Your task to perform on an android device: find snoozed emails in the gmail app Image 0: 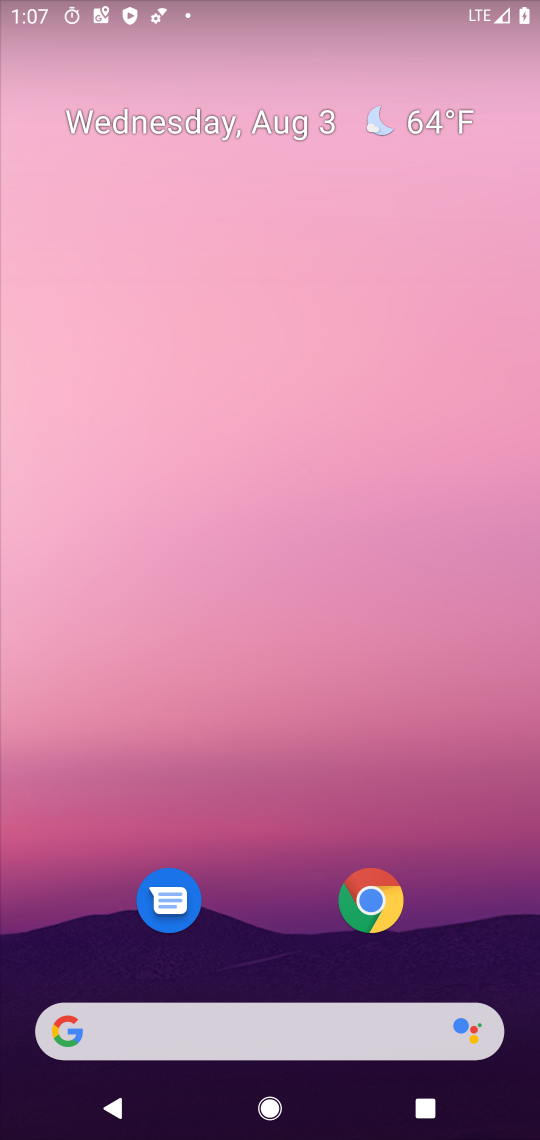
Step 0: drag from (283, 918) to (314, 138)
Your task to perform on an android device: find snoozed emails in the gmail app Image 1: 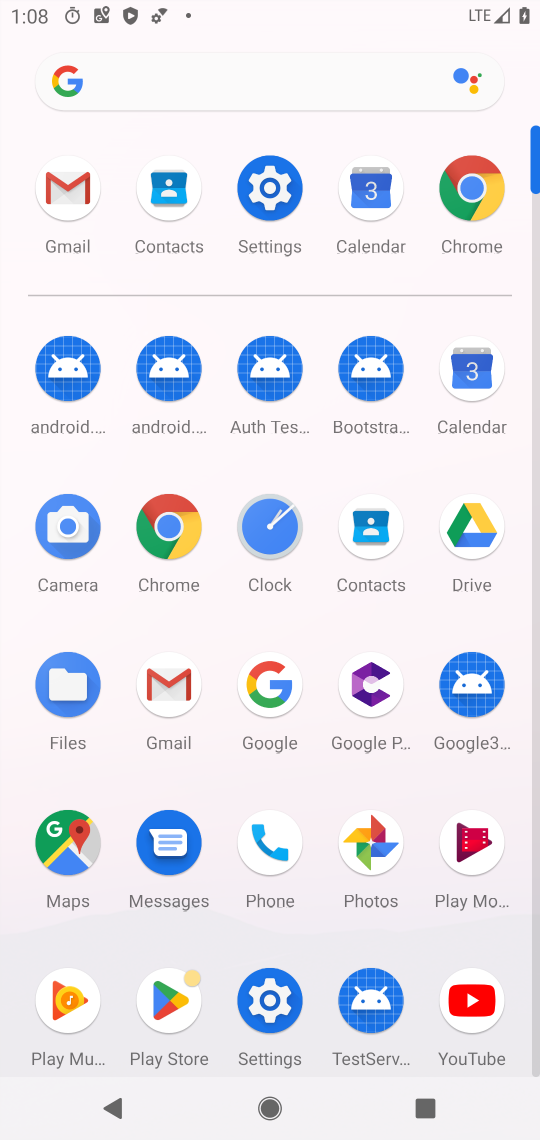
Step 1: click (75, 181)
Your task to perform on an android device: find snoozed emails in the gmail app Image 2: 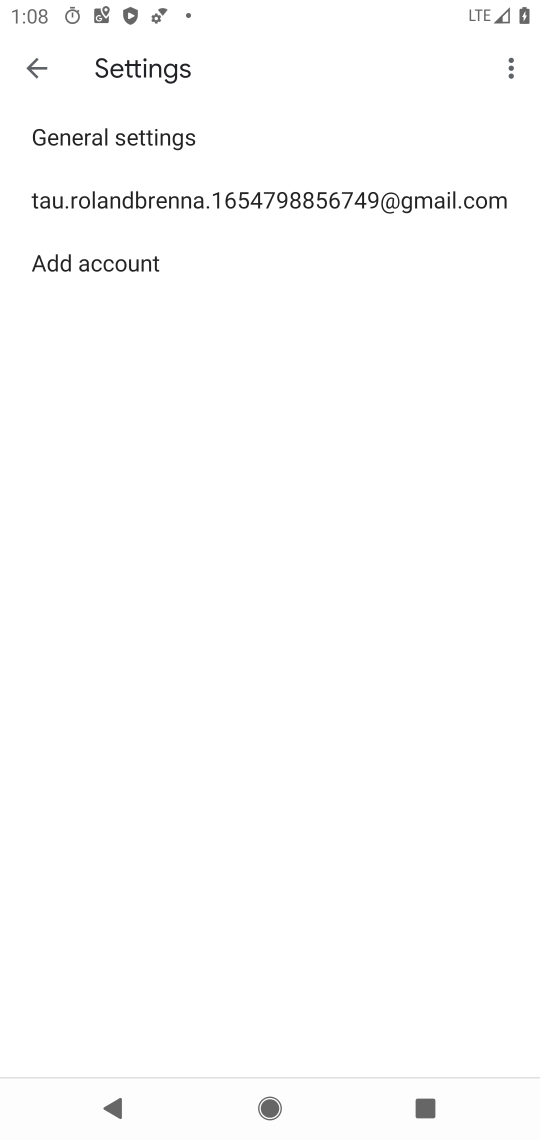
Step 2: click (46, 46)
Your task to perform on an android device: find snoozed emails in the gmail app Image 3: 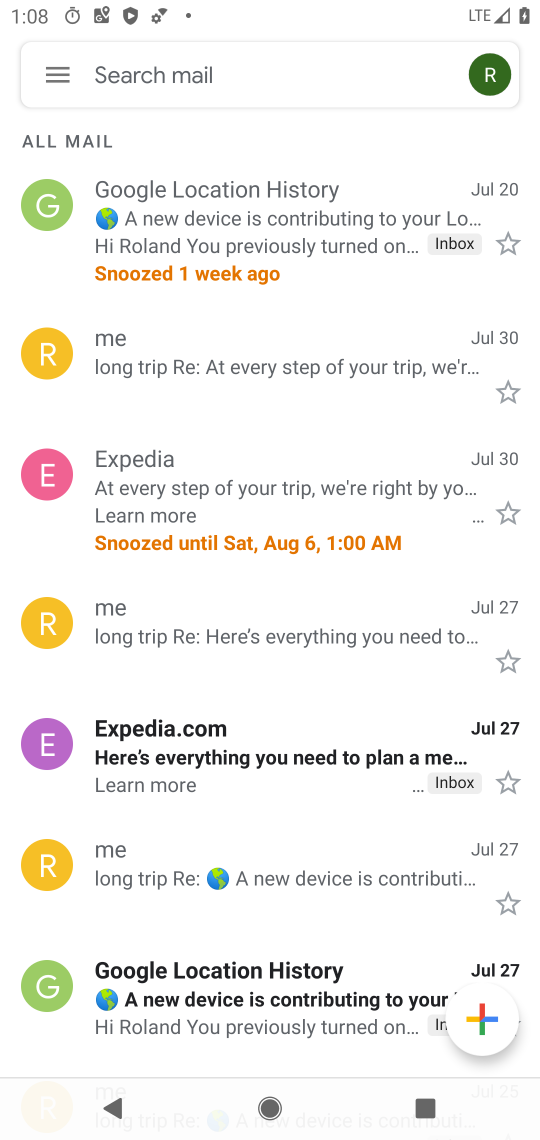
Step 3: click (62, 61)
Your task to perform on an android device: find snoozed emails in the gmail app Image 4: 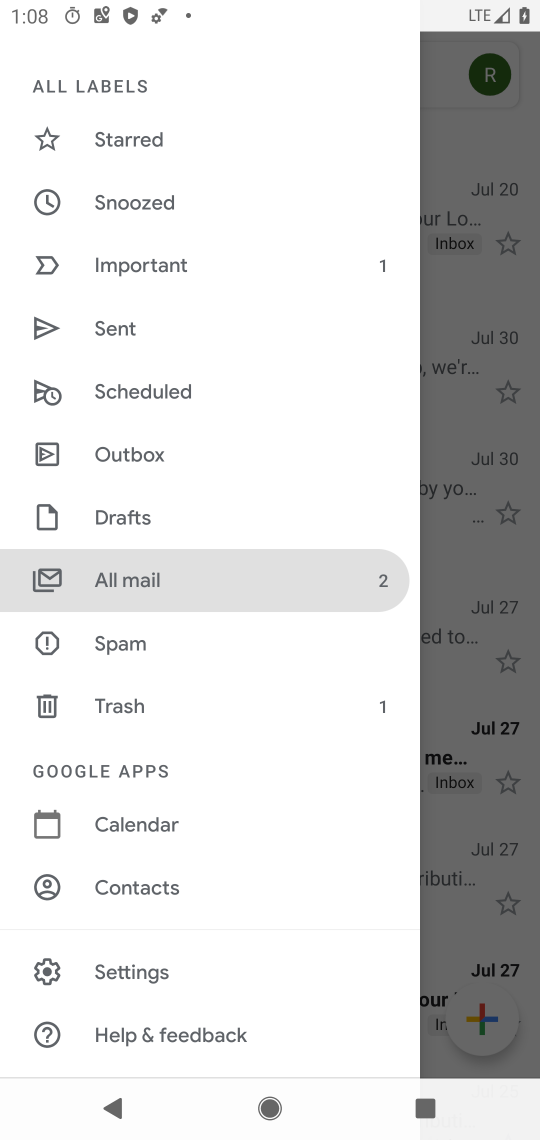
Step 4: click (162, 195)
Your task to perform on an android device: find snoozed emails in the gmail app Image 5: 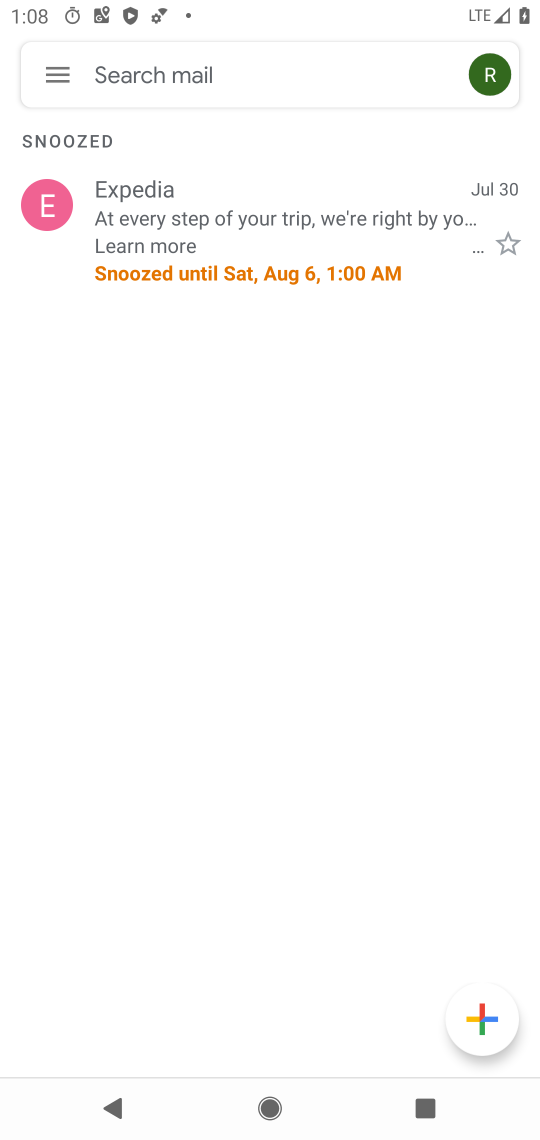
Step 5: task complete